Your task to perform on an android device: turn on showing notifications on the lock screen Image 0: 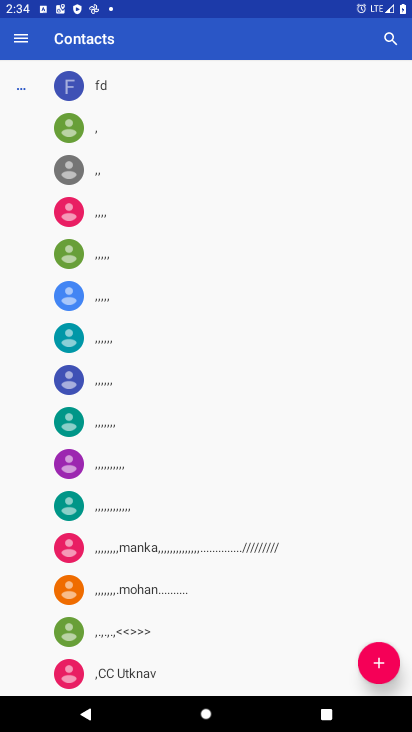
Step 0: press home button
Your task to perform on an android device: turn on showing notifications on the lock screen Image 1: 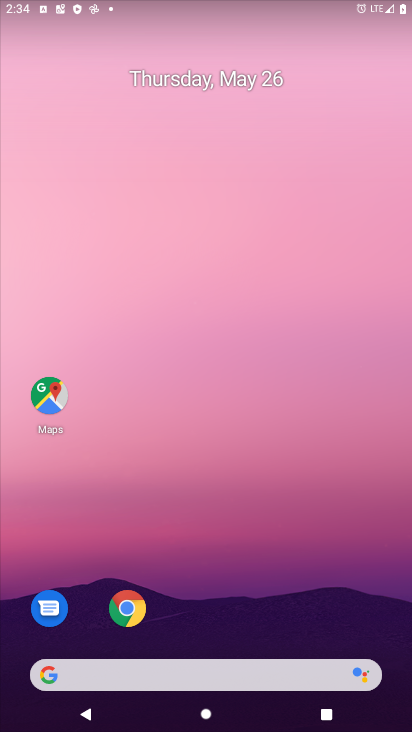
Step 1: drag from (373, 630) to (345, 135)
Your task to perform on an android device: turn on showing notifications on the lock screen Image 2: 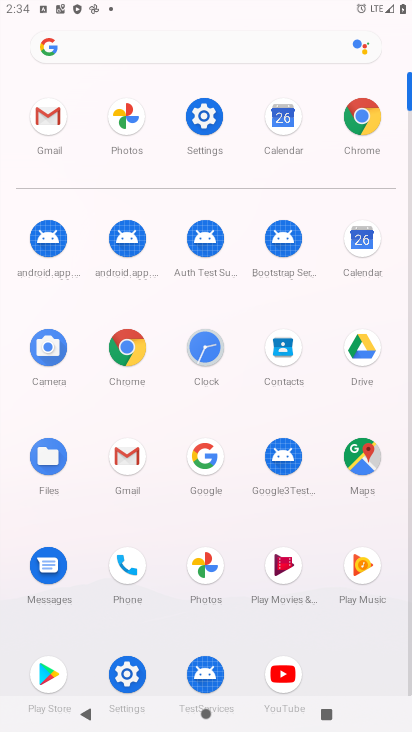
Step 2: click (131, 674)
Your task to perform on an android device: turn on showing notifications on the lock screen Image 3: 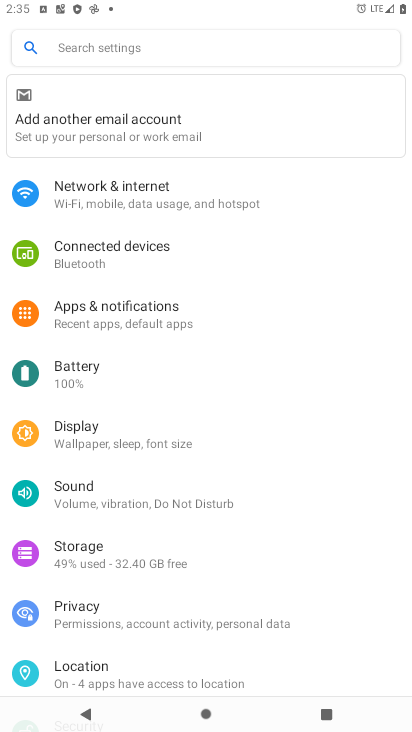
Step 3: click (121, 314)
Your task to perform on an android device: turn on showing notifications on the lock screen Image 4: 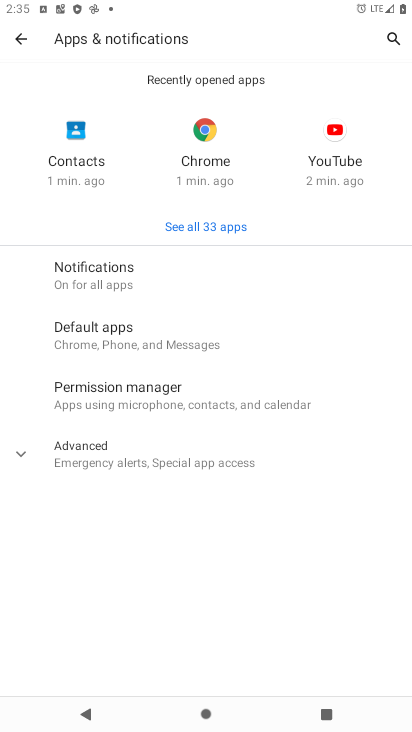
Step 4: click (23, 451)
Your task to perform on an android device: turn on showing notifications on the lock screen Image 5: 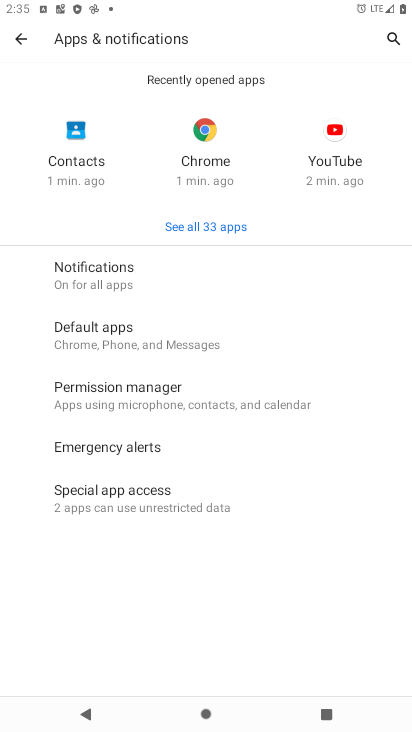
Step 5: click (76, 275)
Your task to perform on an android device: turn on showing notifications on the lock screen Image 6: 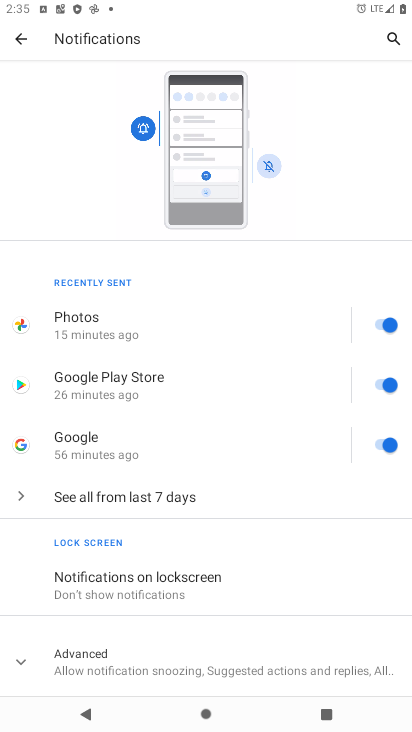
Step 6: click (96, 571)
Your task to perform on an android device: turn on showing notifications on the lock screen Image 7: 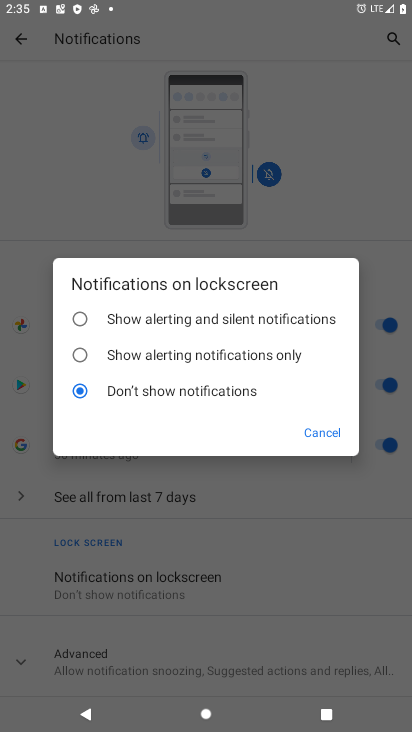
Step 7: click (79, 321)
Your task to perform on an android device: turn on showing notifications on the lock screen Image 8: 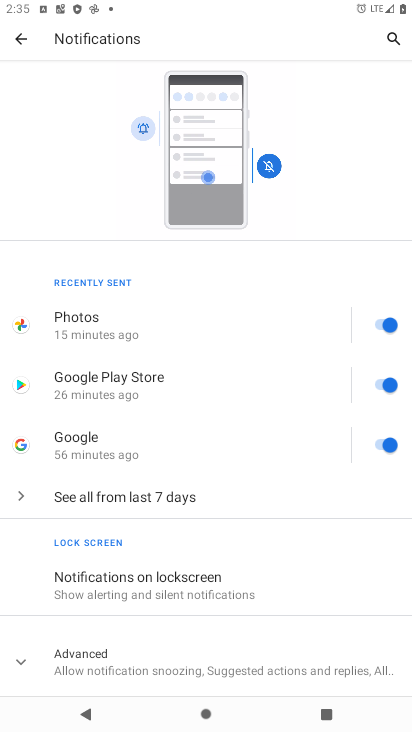
Step 8: task complete